Your task to perform on an android device: Is it going to rain tomorrow? Image 0: 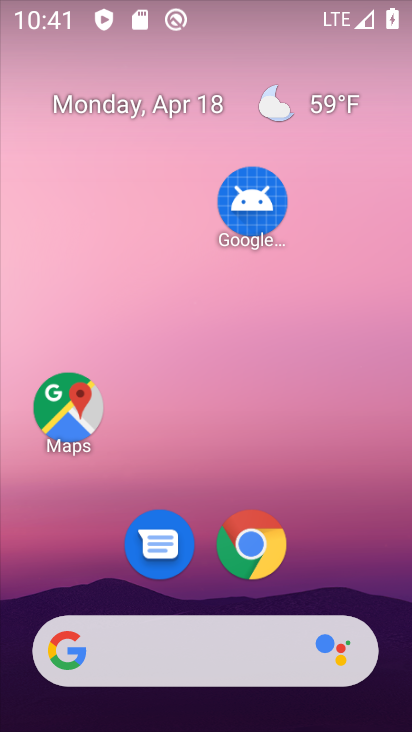
Step 0: drag from (261, 459) to (268, 235)
Your task to perform on an android device: Is it going to rain tomorrow? Image 1: 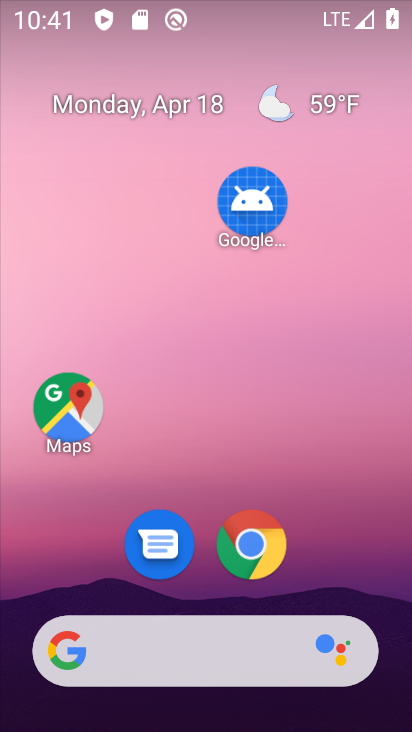
Step 1: drag from (259, 546) to (269, 79)
Your task to perform on an android device: Is it going to rain tomorrow? Image 2: 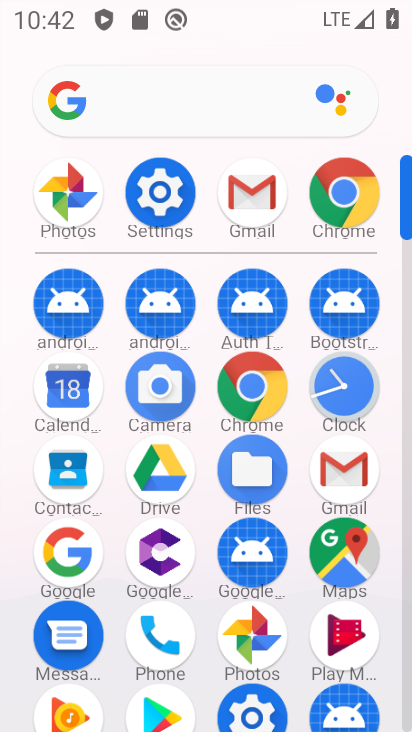
Step 2: click (256, 379)
Your task to perform on an android device: Is it going to rain tomorrow? Image 3: 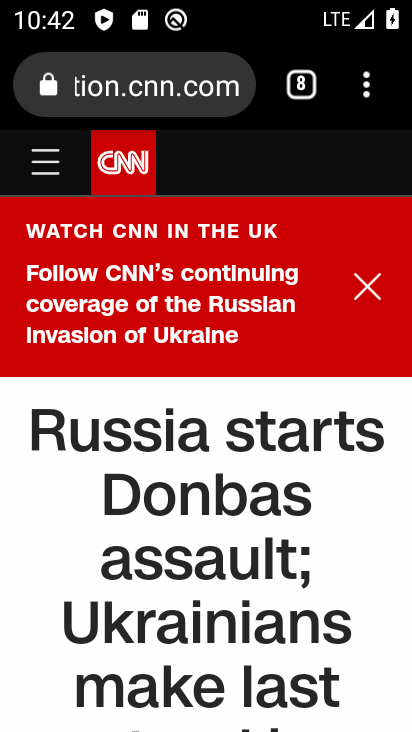
Step 3: click (366, 60)
Your task to perform on an android device: Is it going to rain tomorrow? Image 4: 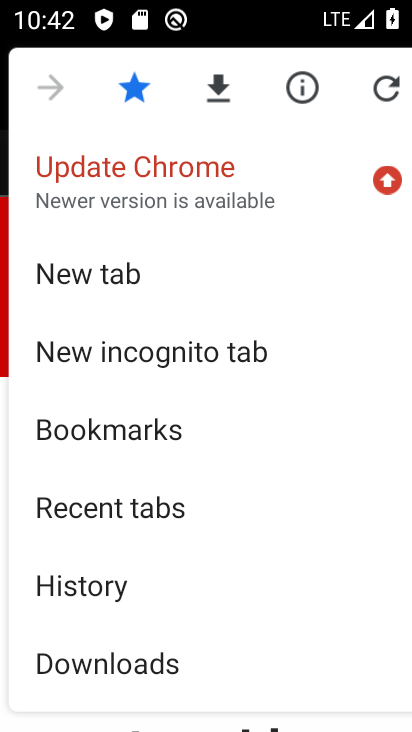
Step 4: click (71, 284)
Your task to perform on an android device: Is it going to rain tomorrow? Image 5: 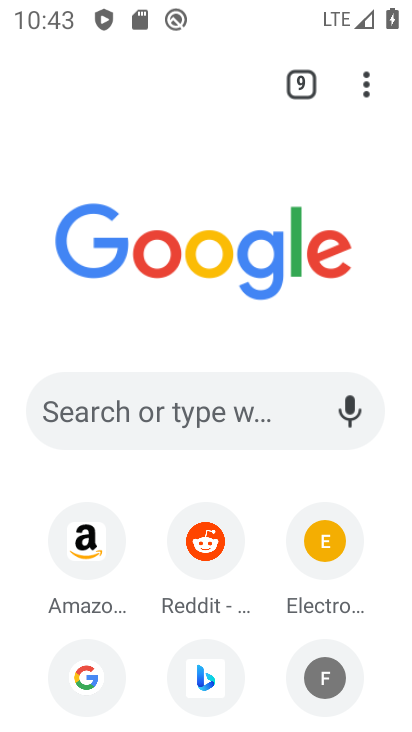
Step 5: click (199, 390)
Your task to perform on an android device: Is it going to rain tomorrow? Image 6: 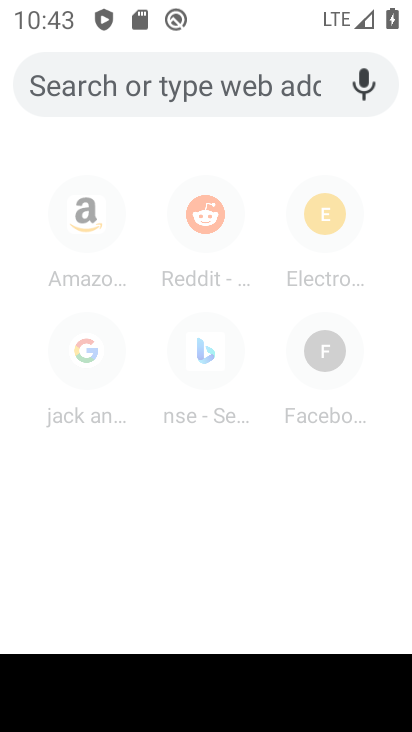
Step 6: type "Is it going to rain tomorrow?"
Your task to perform on an android device: Is it going to rain tomorrow? Image 7: 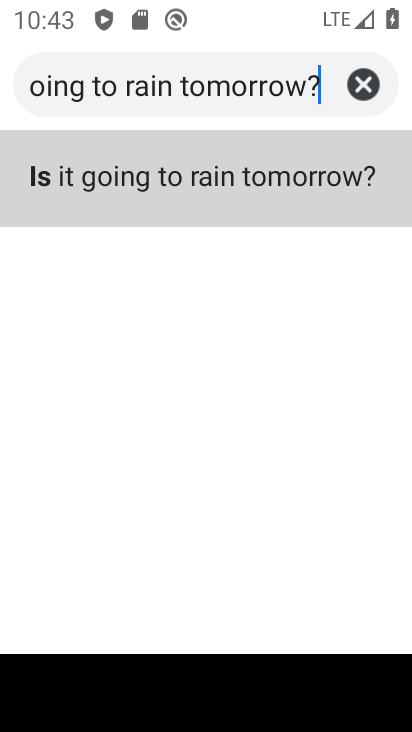
Step 7: click (154, 184)
Your task to perform on an android device: Is it going to rain tomorrow? Image 8: 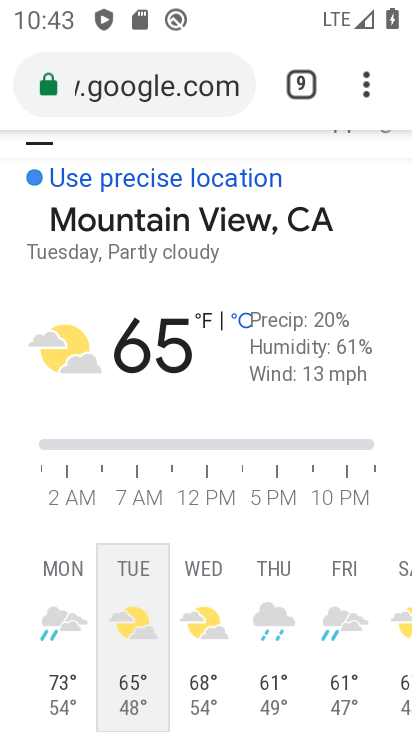
Step 8: task complete